Your task to perform on an android device: uninstall "Facebook" Image 0: 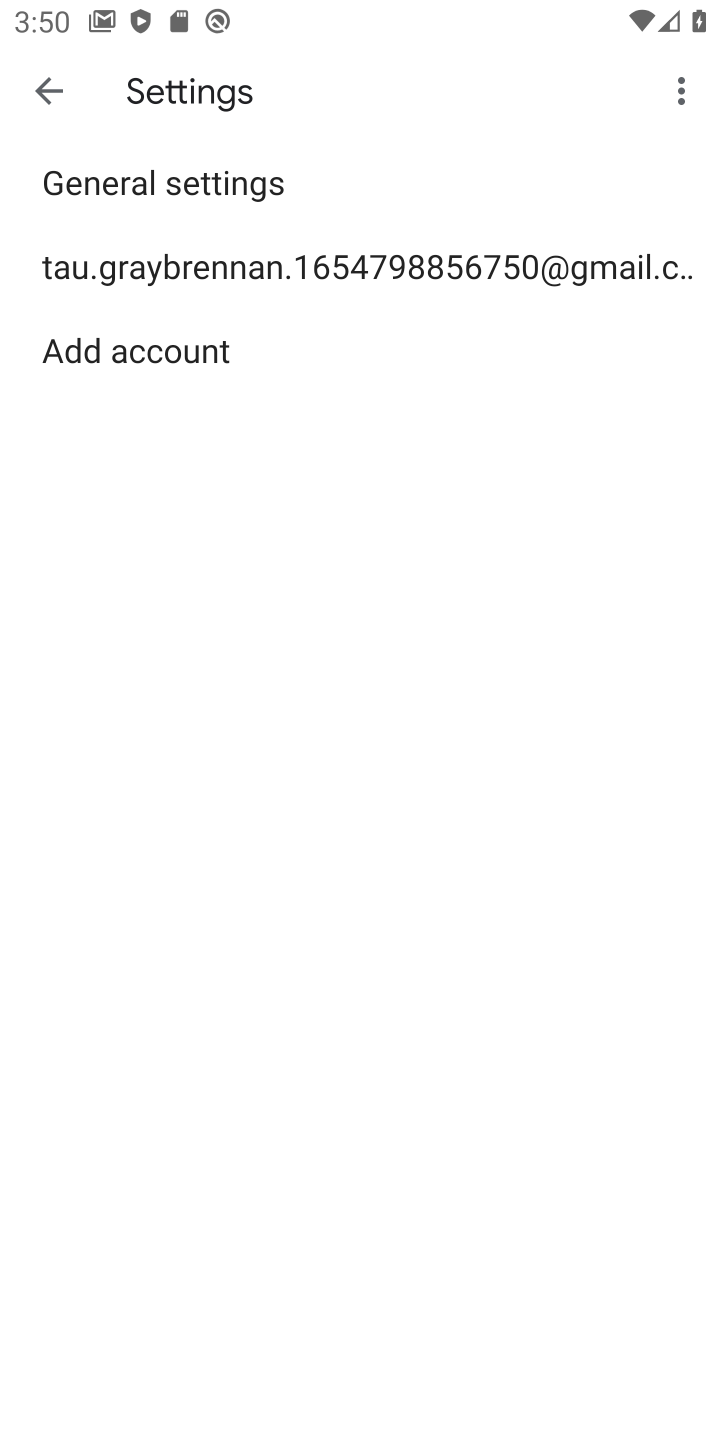
Step 0: press home button
Your task to perform on an android device: uninstall "Facebook" Image 1: 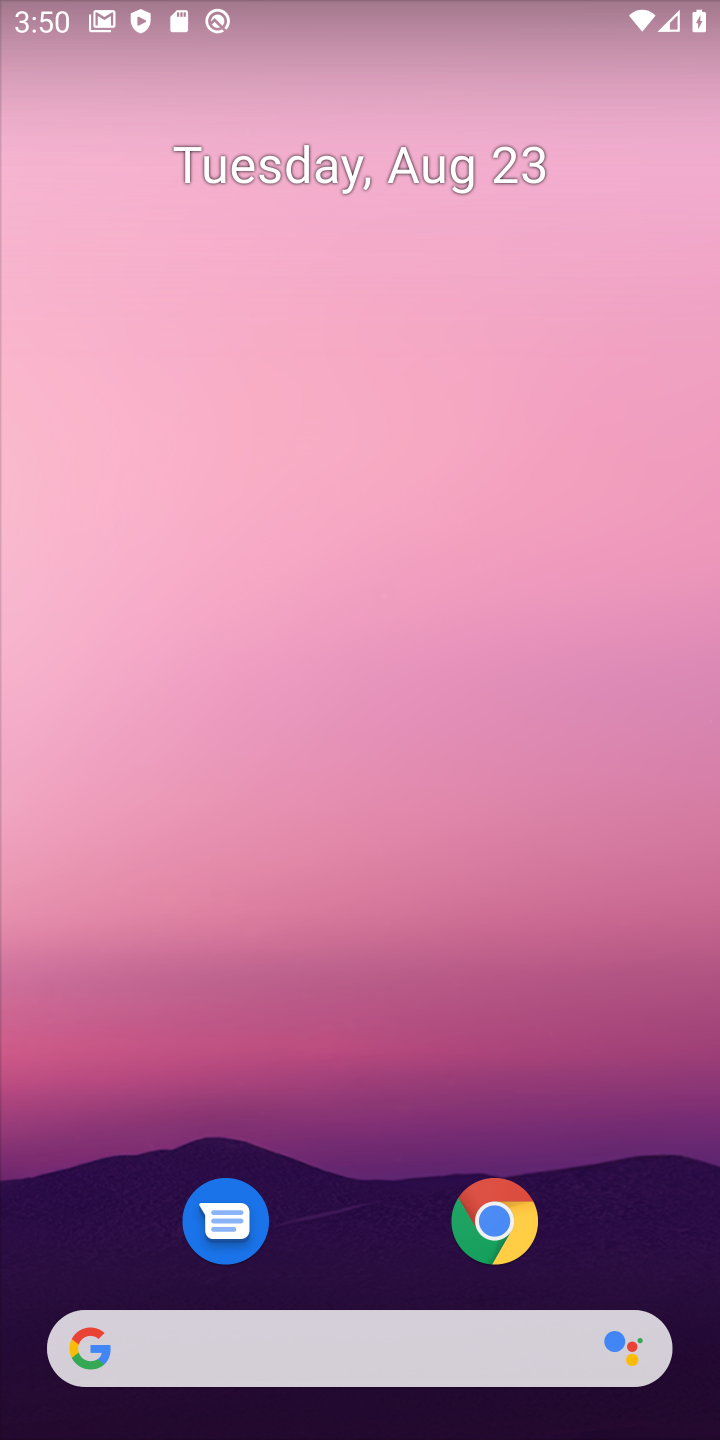
Step 1: drag from (332, 1266) to (444, 33)
Your task to perform on an android device: uninstall "Facebook" Image 2: 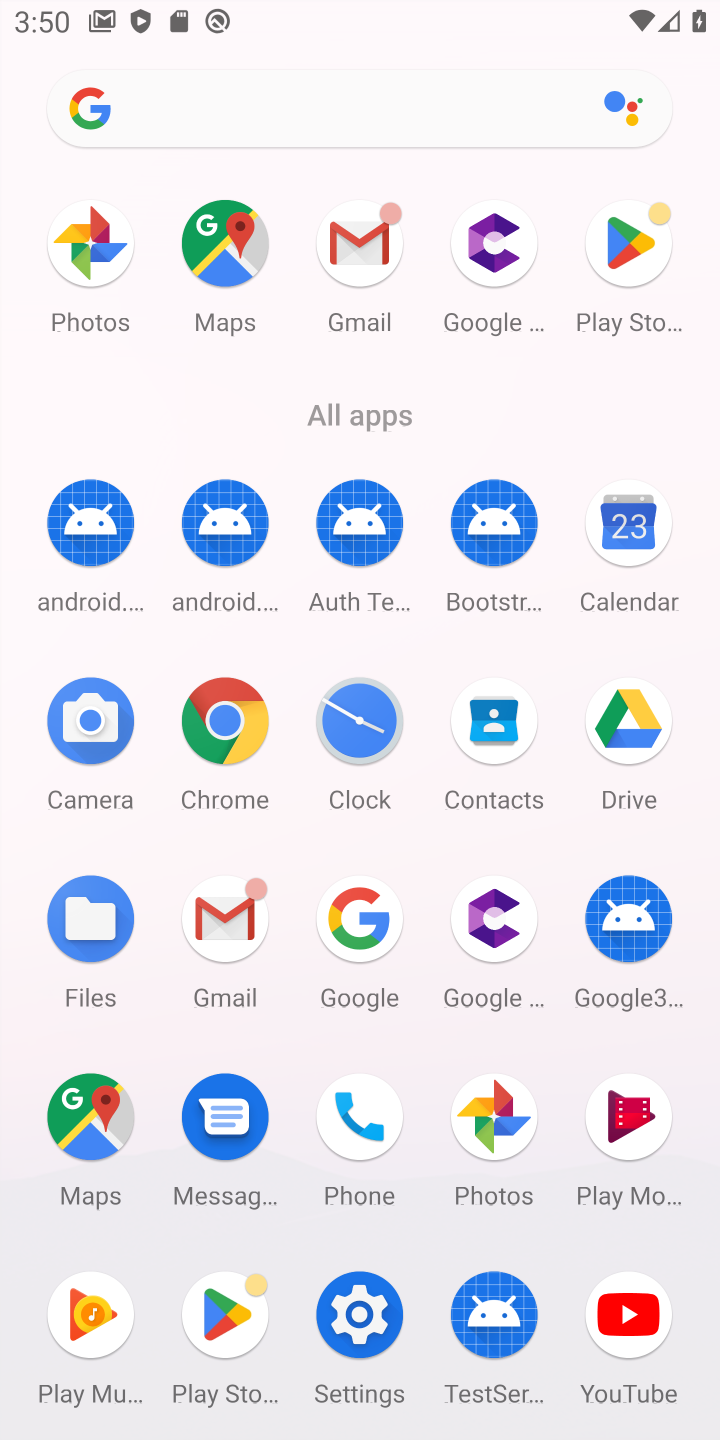
Step 2: click (621, 252)
Your task to perform on an android device: uninstall "Facebook" Image 3: 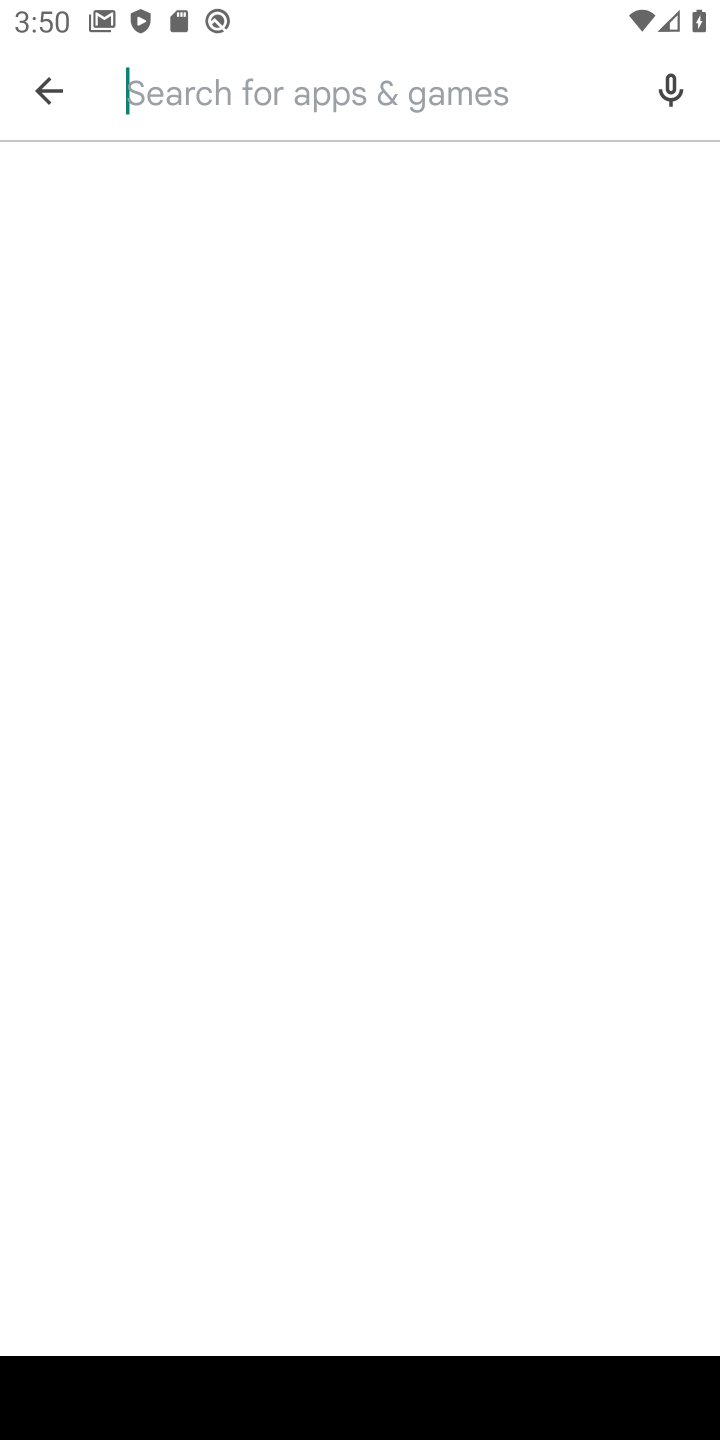
Step 3: type "Facebook"
Your task to perform on an android device: uninstall "Facebook" Image 4: 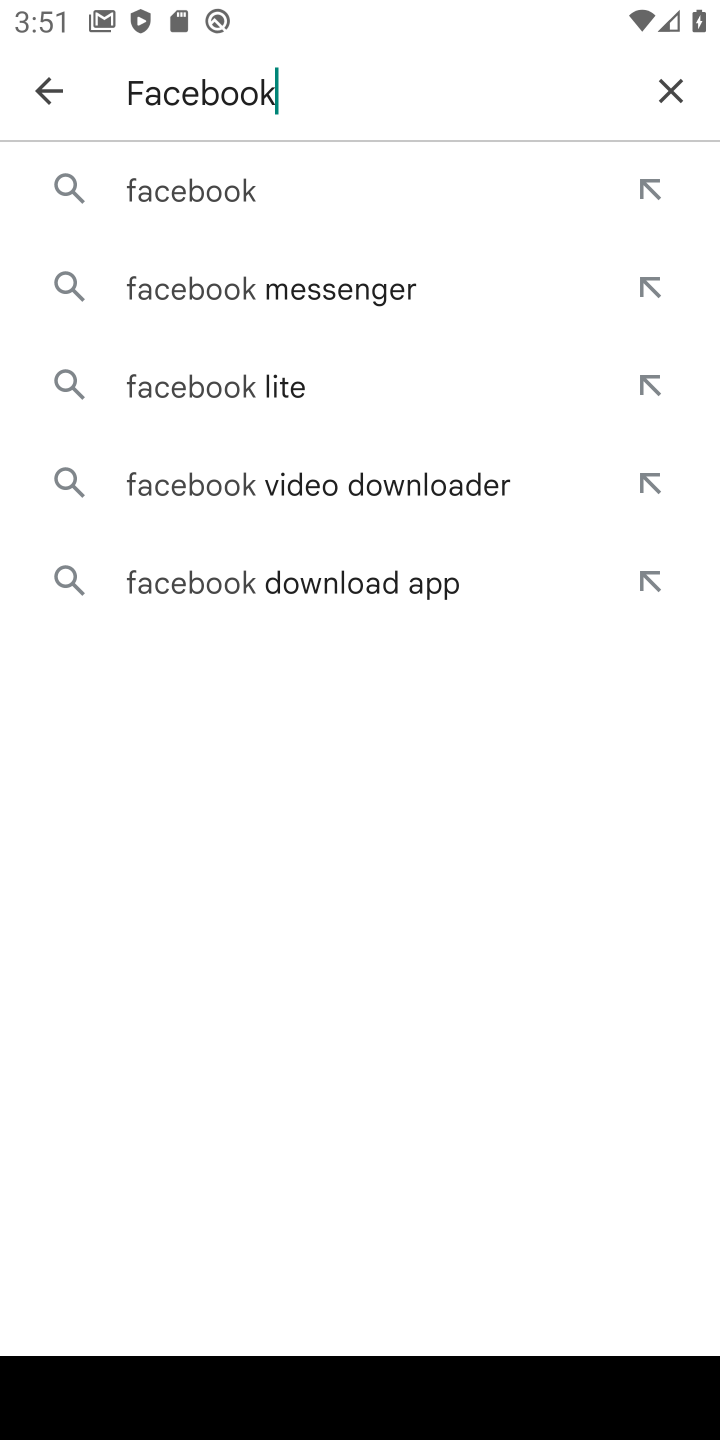
Step 4: click (177, 196)
Your task to perform on an android device: uninstall "Facebook" Image 5: 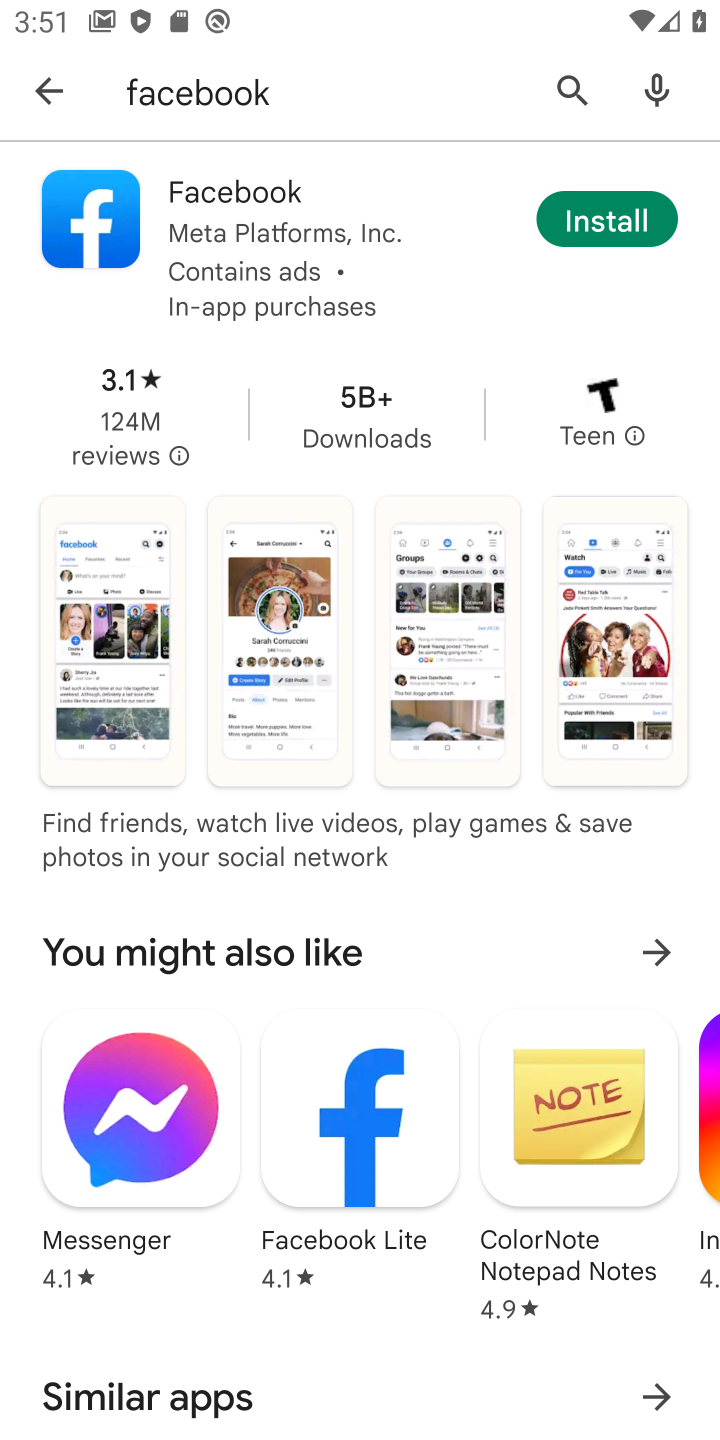
Step 5: task complete